Your task to perform on an android device: turn off translation in the chrome app Image 0: 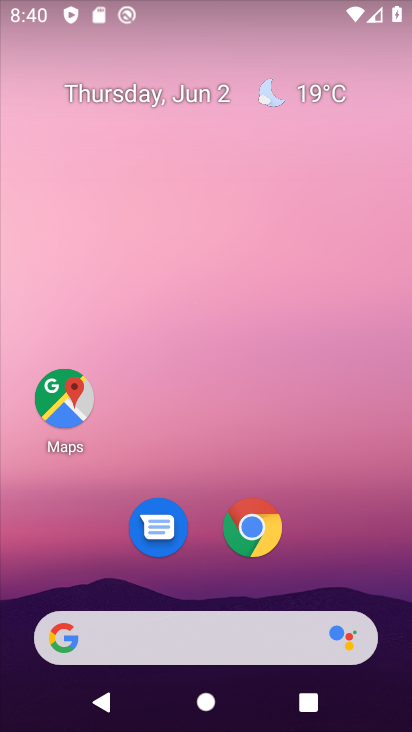
Step 0: click (262, 536)
Your task to perform on an android device: turn off translation in the chrome app Image 1: 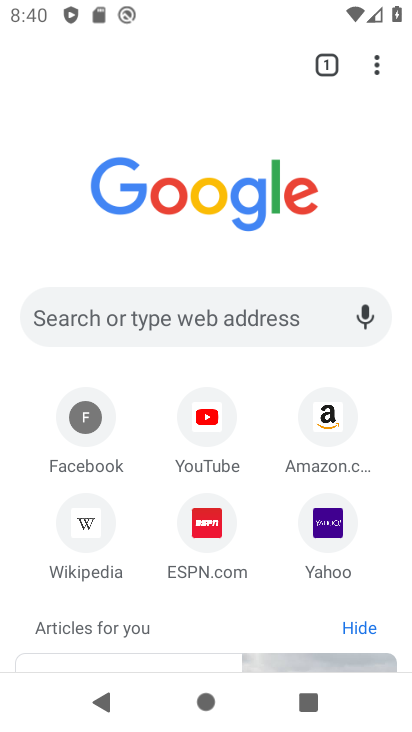
Step 1: click (376, 70)
Your task to perform on an android device: turn off translation in the chrome app Image 2: 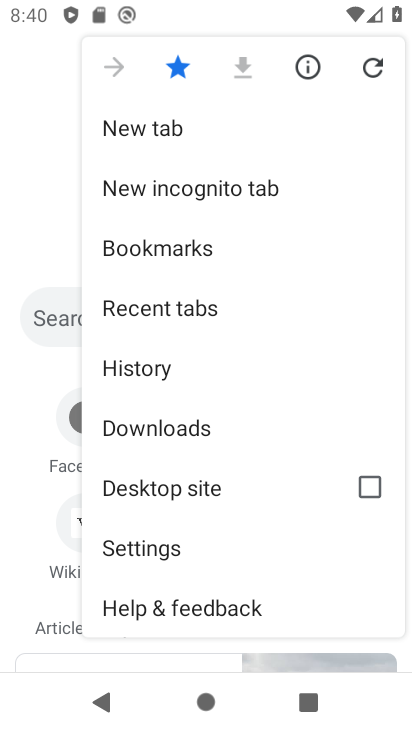
Step 2: click (194, 547)
Your task to perform on an android device: turn off translation in the chrome app Image 3: 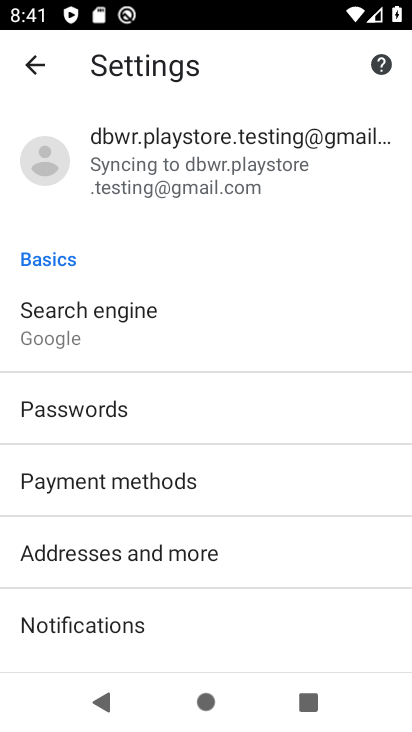
Step 3: drag from (215, 602) to (172, 288)
Your task to perform on an android device: turn off translation in the chrome app Image 4: 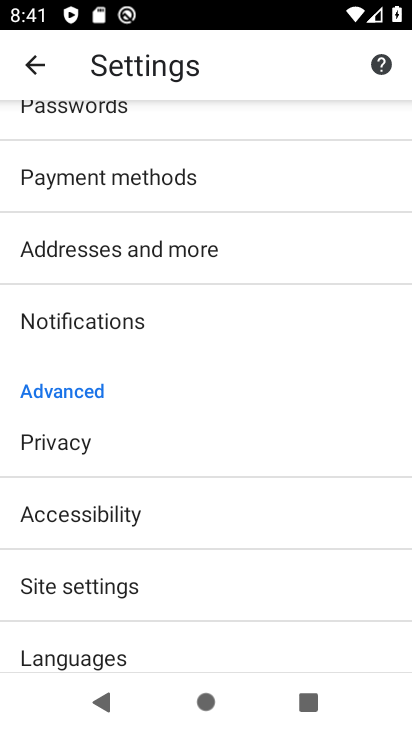
Step 4: drag from (213, 612) to (180, 402)
Your task to perform on an android device: turn off translation in the chrome app Image 5: 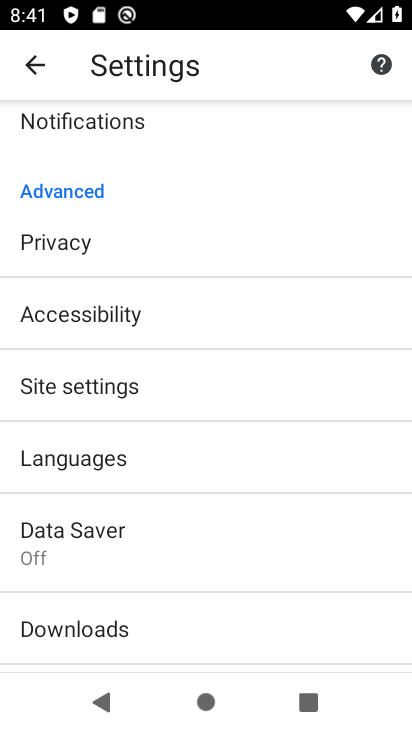
Step 5: click (156, 461)
Your task to perform on an android device: turn off translation in the chrome app Image 6: 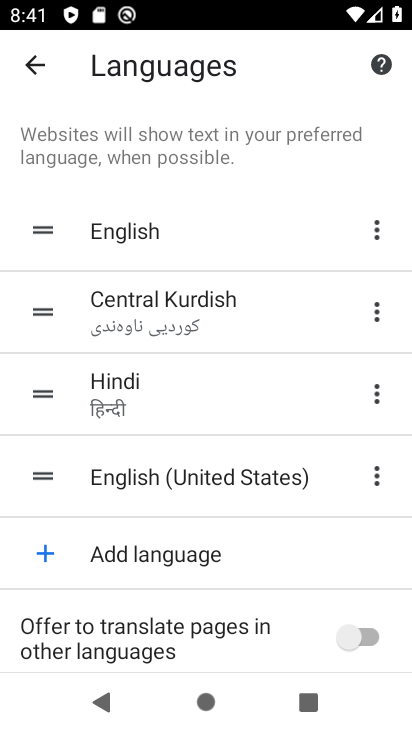
Step 6: task complete